Your task to perform on an android device: Open privacy settings Image 0: 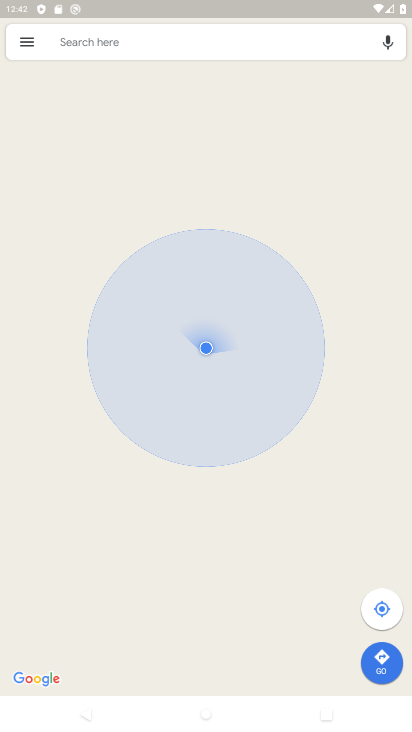
Step 0: press home button
Your task to perform on an android device: Open privacy settings Image 1: 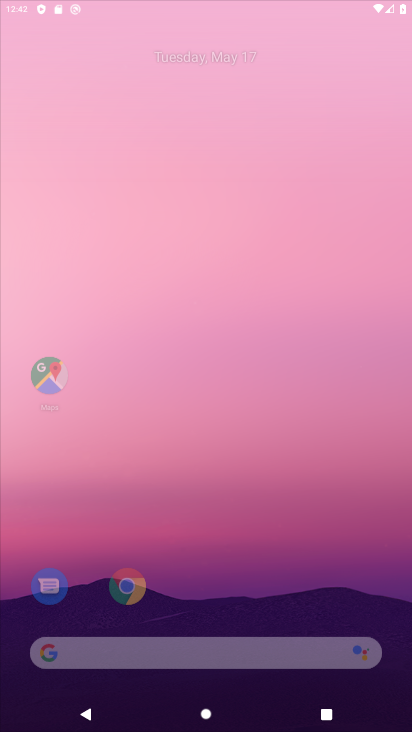
Step 1: drag from (205, 625) to (302, 77)
Your task to perform on an android device: Open privacy settings Image 2: 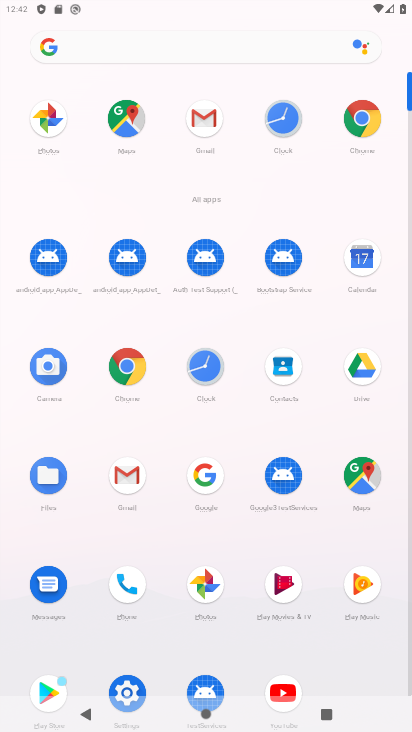
Step 2: click (129, 688)
Your task to perform on an android device: Open privacy settings Image 3: 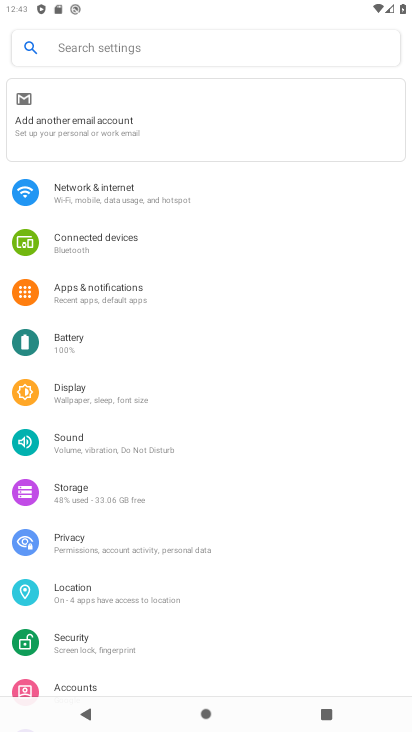
Step 3: click (108, 534)
Your task to perform on an android device: Open privacy settings Image 4: 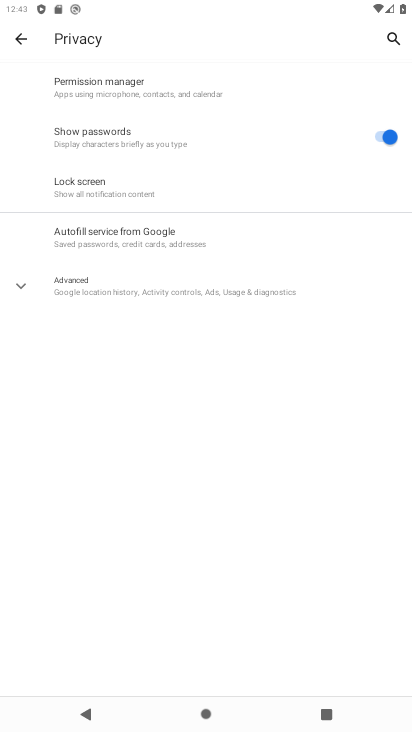
Step 4: task complete